Your task to perform on an android device: Find coffee shops on Maps Image 0: 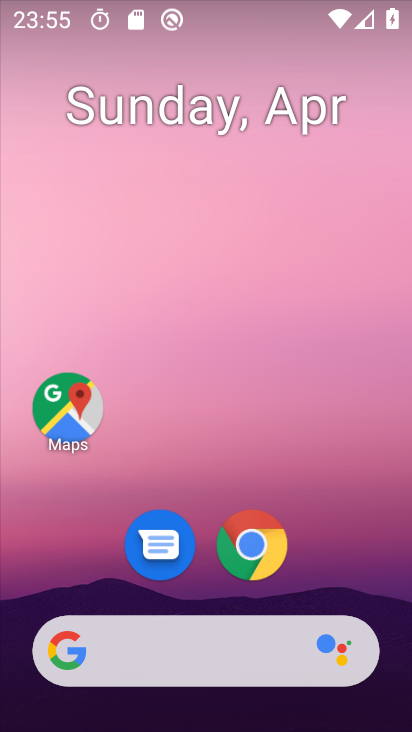
Step 0: drag from (329, 462) to (329, 161)
Your task to perform on an android device: Find coffee shops on Maps Image 1: 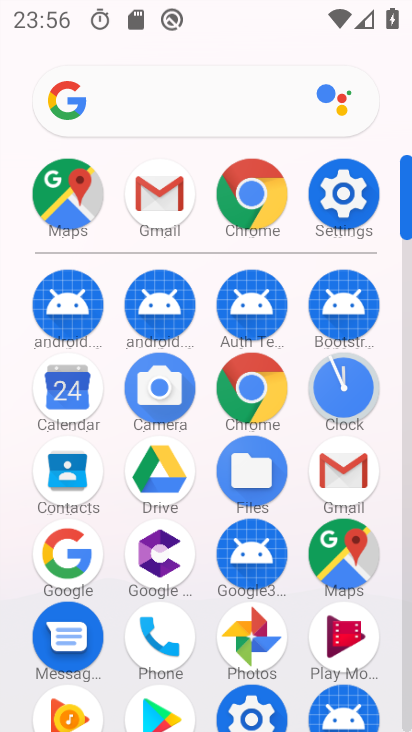
Step 1: click (57, 186)
Your task to perform on an android device: Find coffee shops on Maps Image 2: 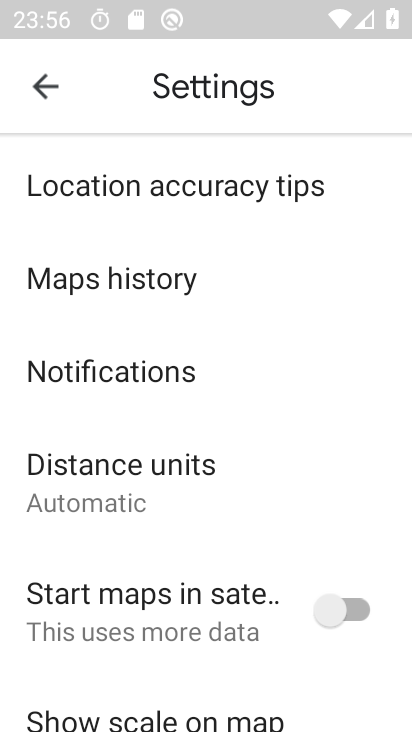
Step 2: click (25, 90)
Your task to perform on an android device: Find coffee shops on Maps Image 3: 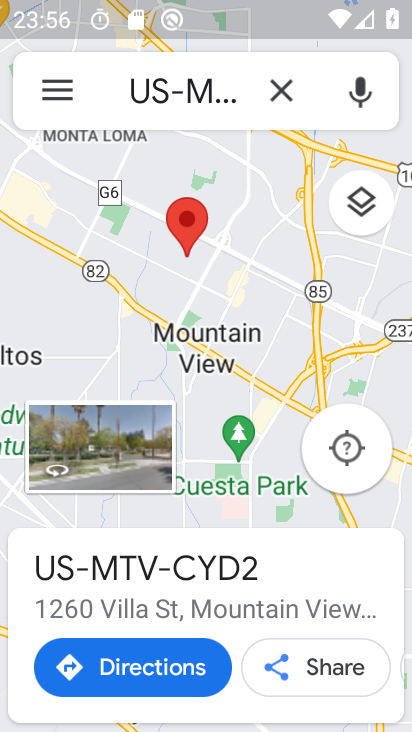
Step 3: click (297, 89)
Your task to perform on an android device: Find coffee shops on Maps Image 4: 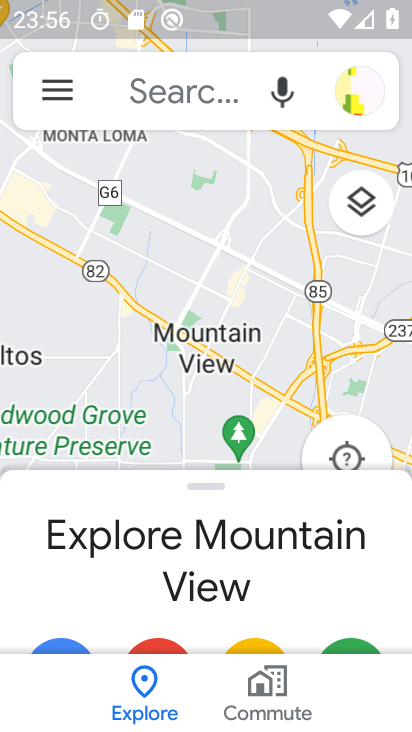
Step 4: click (203, 80)
Your task to perform on an android device: Find coffee shops on Maps Image 5: 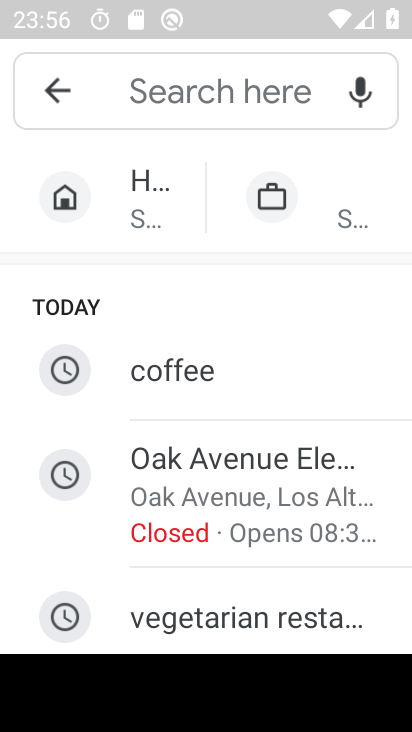
Step 5: type "coffee shop"
Your task to perform on an android device: Find coffee shops on Maps Image 6: 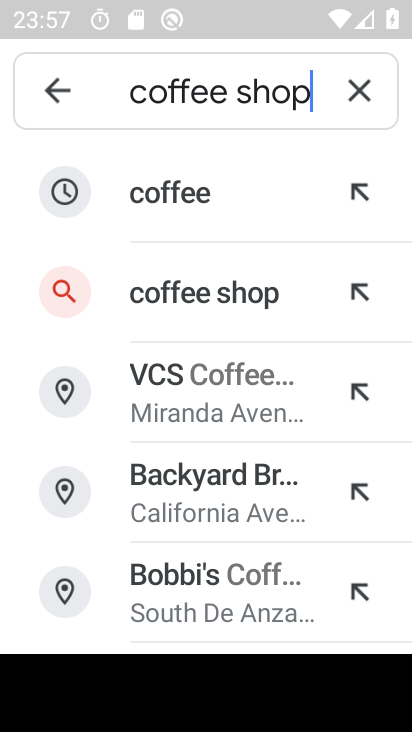
Step 6: click (212, 160)
Your task to perform on an android device: Find coffee shops on Maps Image 7: 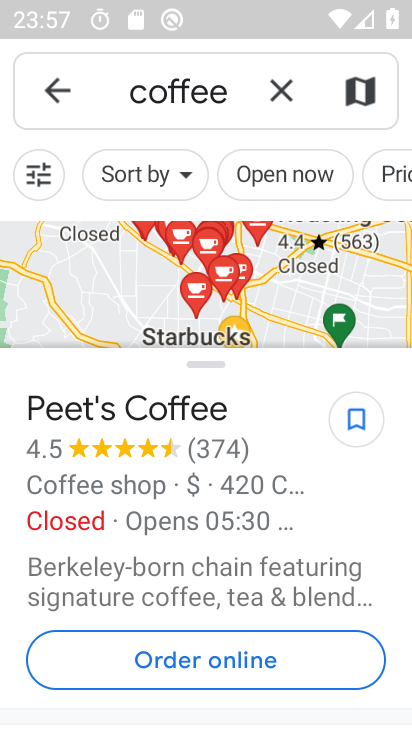
Step 7: task complete